Your task to perform on an android device: visit the assistant section in the google photos Image 0: 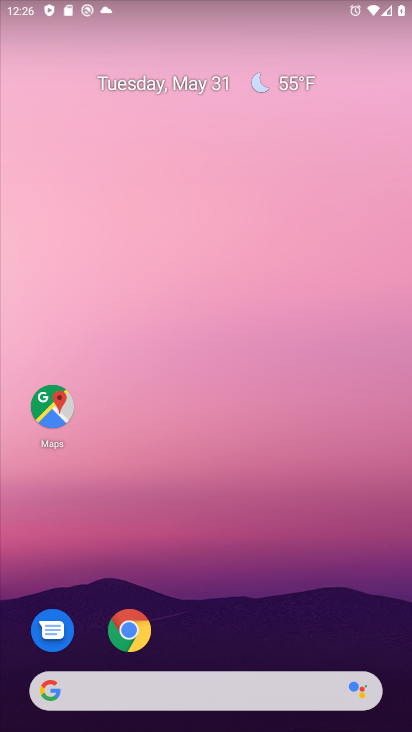
Step 0: drag from (176, 663) to (202, 201)
Your task to perform on an android device: visit the assistant section in the google photos Image 1: 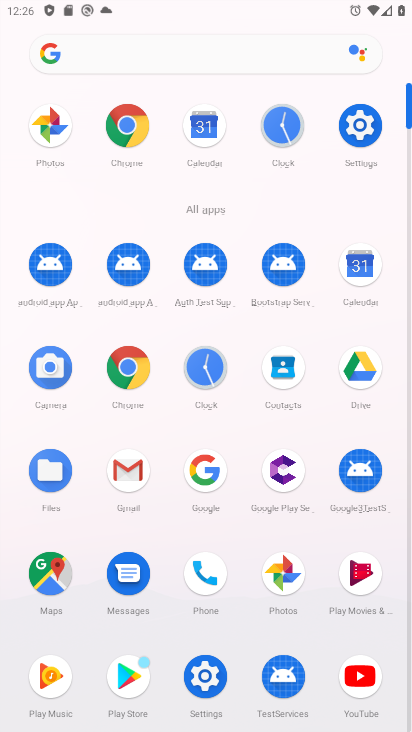
Step 1: click (281, 581)
Your task to perform on an android device: visit the assistant section in the google photos Image 2: 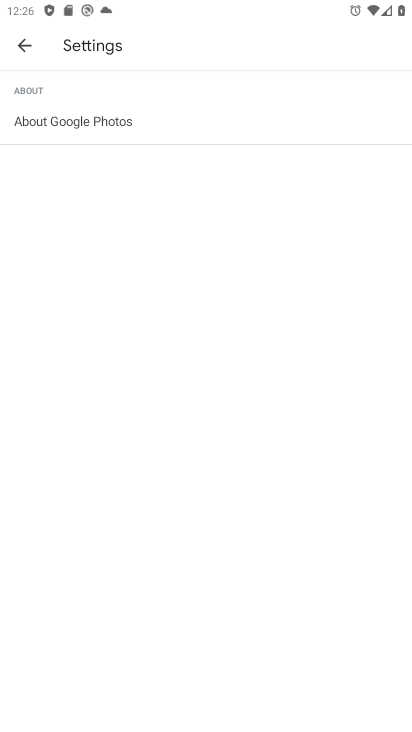
Step 2: click (28, 44)
Your task to perform on an android device: visit the assistant section in the google photos Image 3: 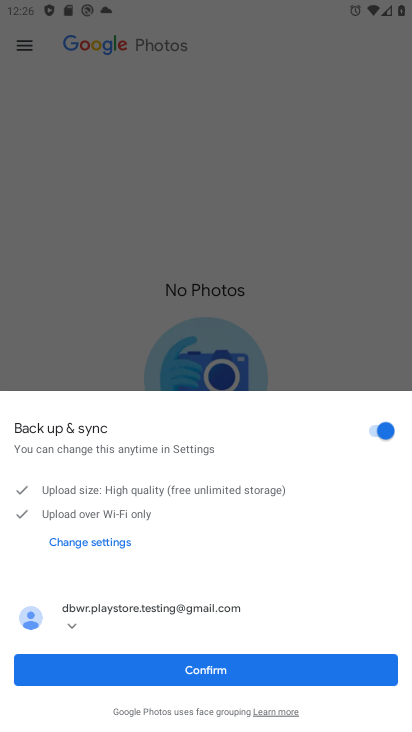
Step 3: click (190, 675)
Your task to perform on an android device: visit the assistant section in the google photos Image 4: 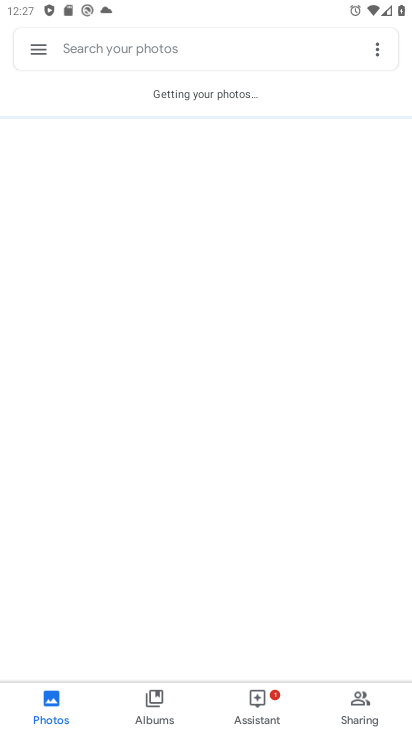
Step 4: click (254, 699)
Your task to perform on an android device: visit the assistant section in the google photos Image 5: 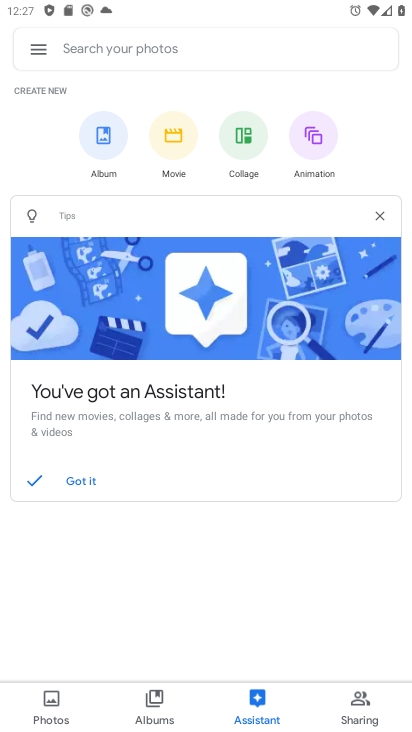
Step 5: task complete